Your task to perform on an android device: Show me the alarms in the clock app Image 0: 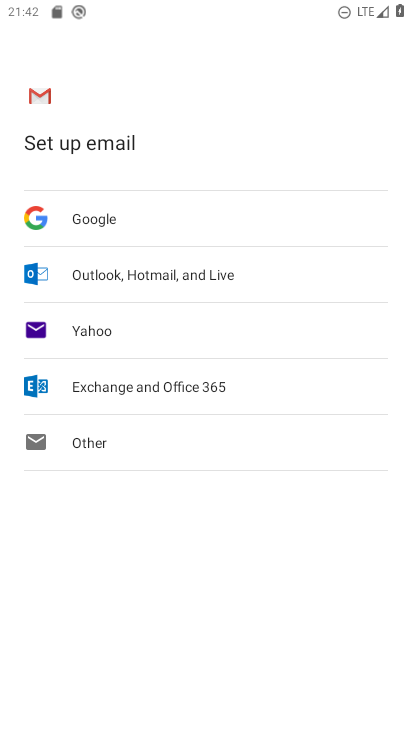
Step 0: press home button
Your task to perform on an android device: Show me the alarms in the clock app Image 1: 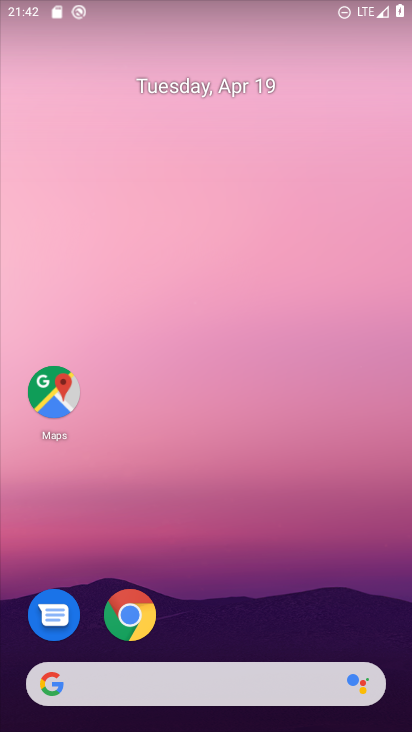
Step 1: drag from (256, 616) to (205, 43)
Your task to perform on an android device: Show me the alarms in the clock app Image 2: 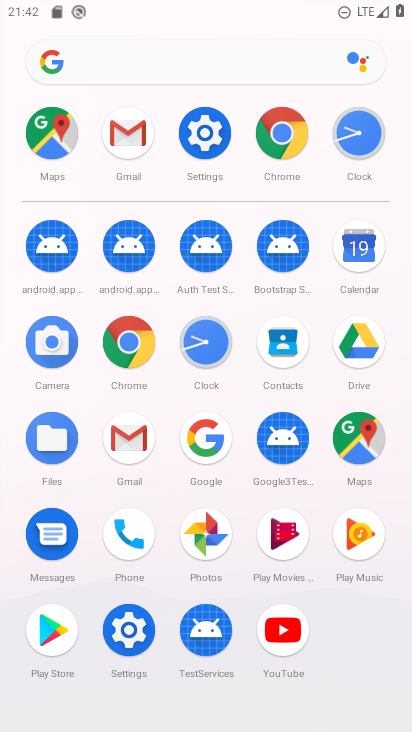
Step 2: click (209, 354)
Your task to perform on an android device: Show me the alarms in the clock app Image 3: 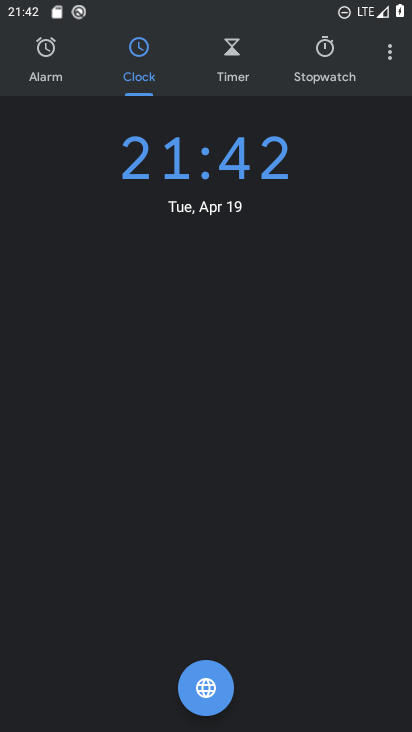
Step 3: click (53, 60)
Your task to perform on an android device: Show me the alarms in the clock app Image 4: 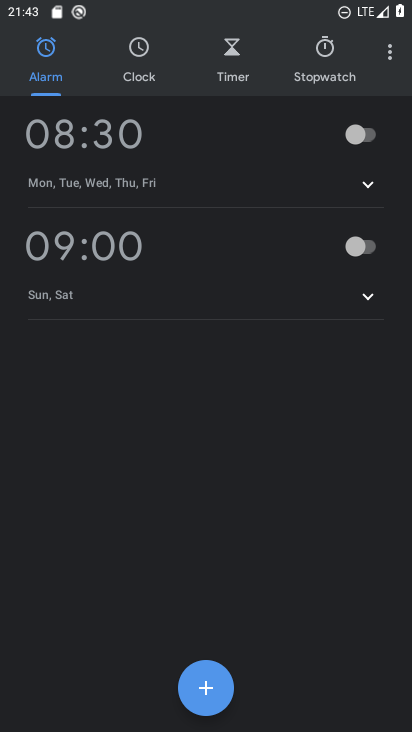
Step 4: task complete